Your task to perform on an android device: Go to Amazon Image 0: 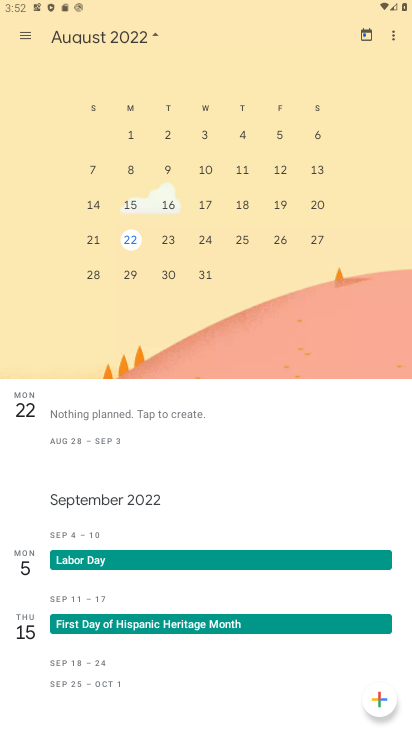
Step 0: press home button
Your task to perform on an android device: Go to Amazon Image 1: 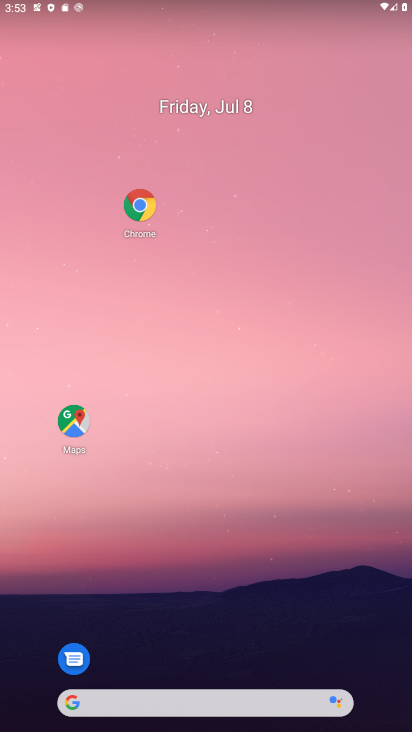
Step 1: click (149, 202)
Your task to perform on an android device: Go to Amazon Image 2: 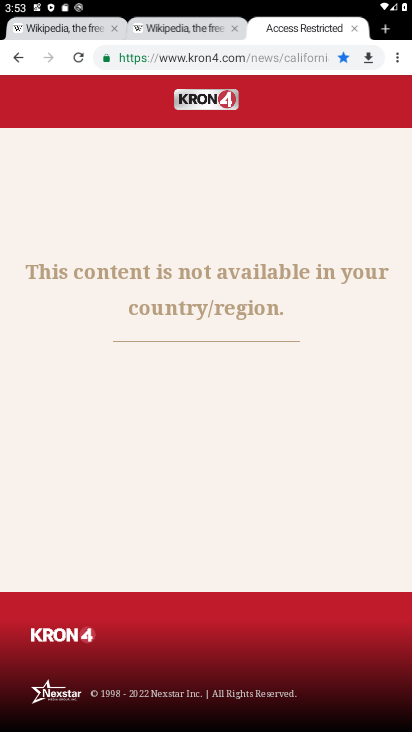
Step 2: click (390, 31)
Your task to perform on an android device: Go to Amazon Image 3: 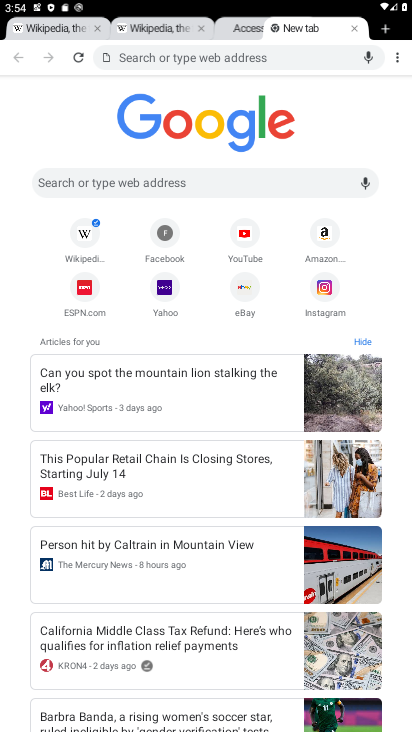
Step 3: click (317, 244)
Your task to perform on an android device: Go to Amazon Image 4: 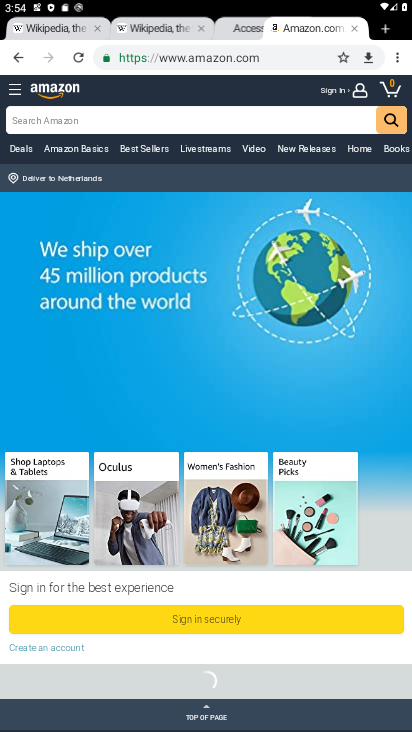
Step 4: task complete